Your task to perform on an android device: Go to network settings Image 0: 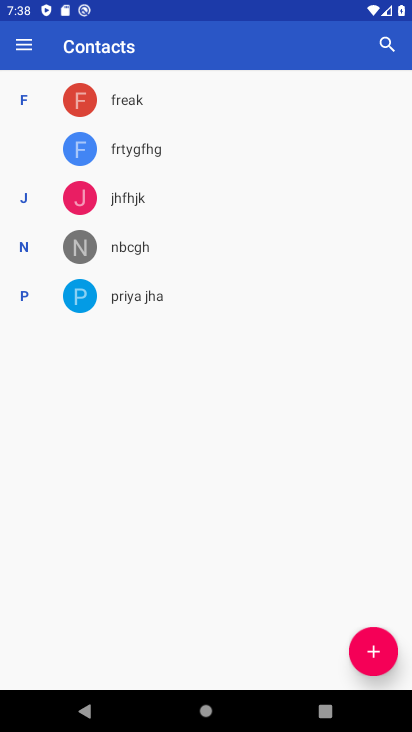
Step 0: press home button
Your task to perform on an android device: Go to network settings Image 1: 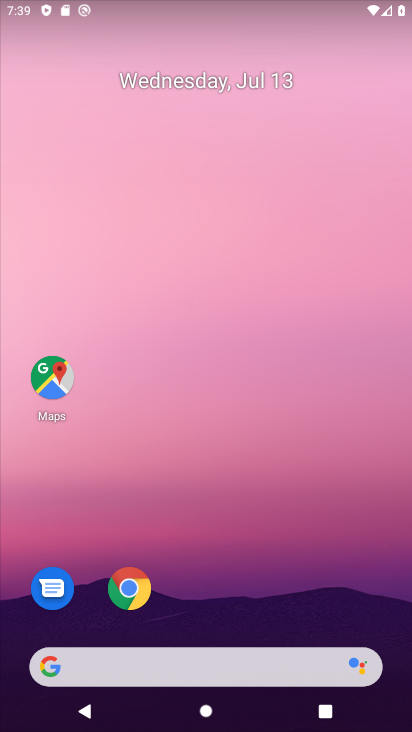
Step 1: drag from (142, 709) to (229, 6)
Your task to perform on an android device: Go to network settings Image 2: 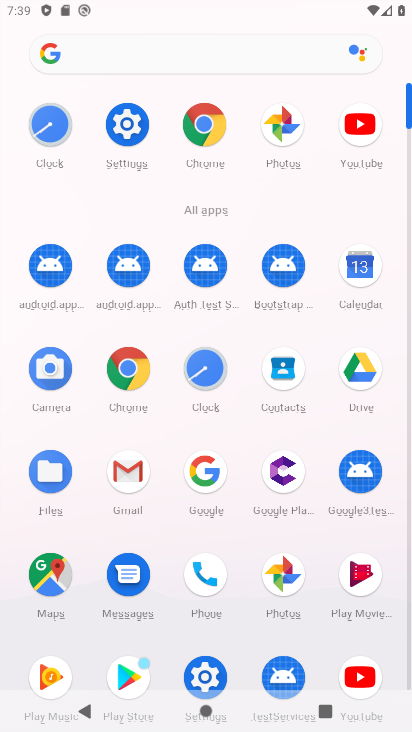
Step 2: click (137, 114)
Your task to perform on an android device: Go to network settings Image 3: 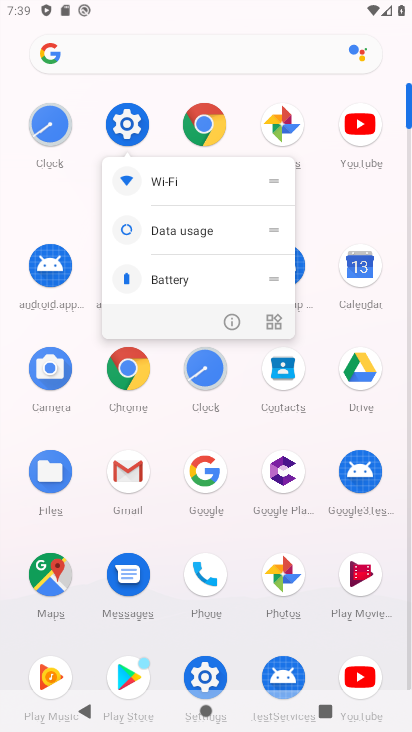
Step 3: click (132, 117)
Your task to perform on an android device: Go to network settings Image 4: 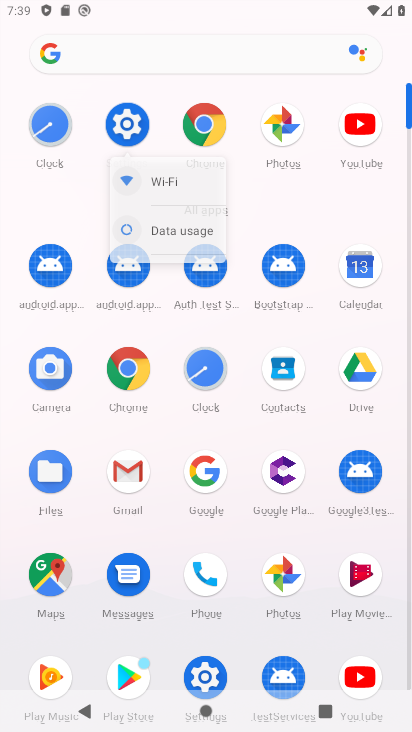
Step 4: click (132, 117)
Your task to perform on an android device: Go to network settings Image 5: 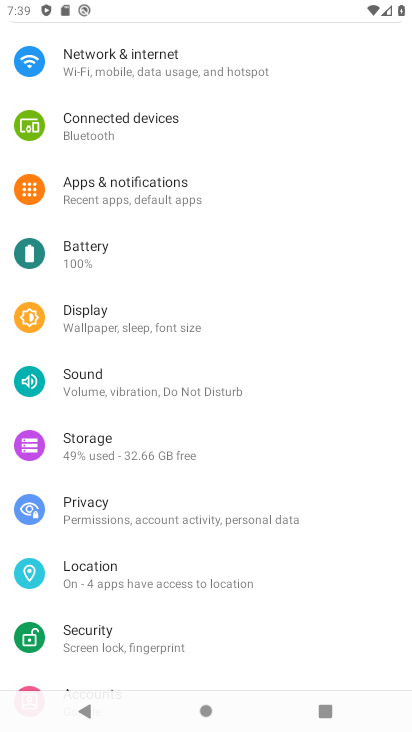
Step 5: click (152, 64)
Your task to perform on an android device: Go to network settings Image 6: 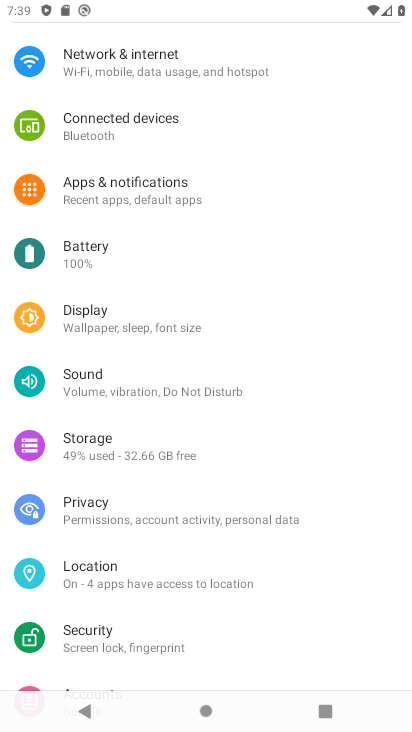
Step 6: click (152, 64)
Your task to perform on an android device: Go to network settings Image 7: 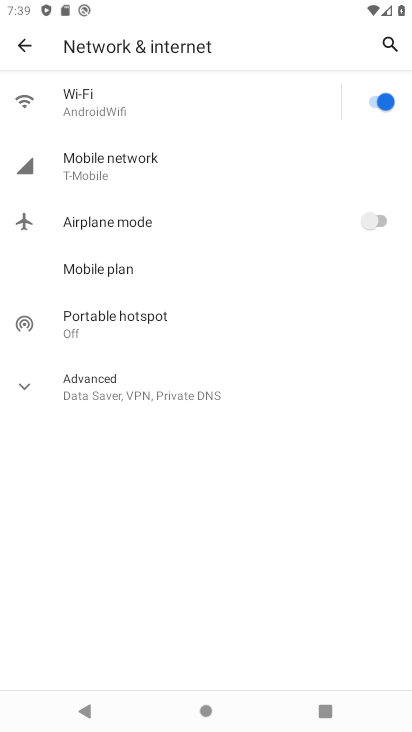
Step 7: task complete